Your task to perform on an android device: install app "Spotify: Music and Podcasts" Image 0: 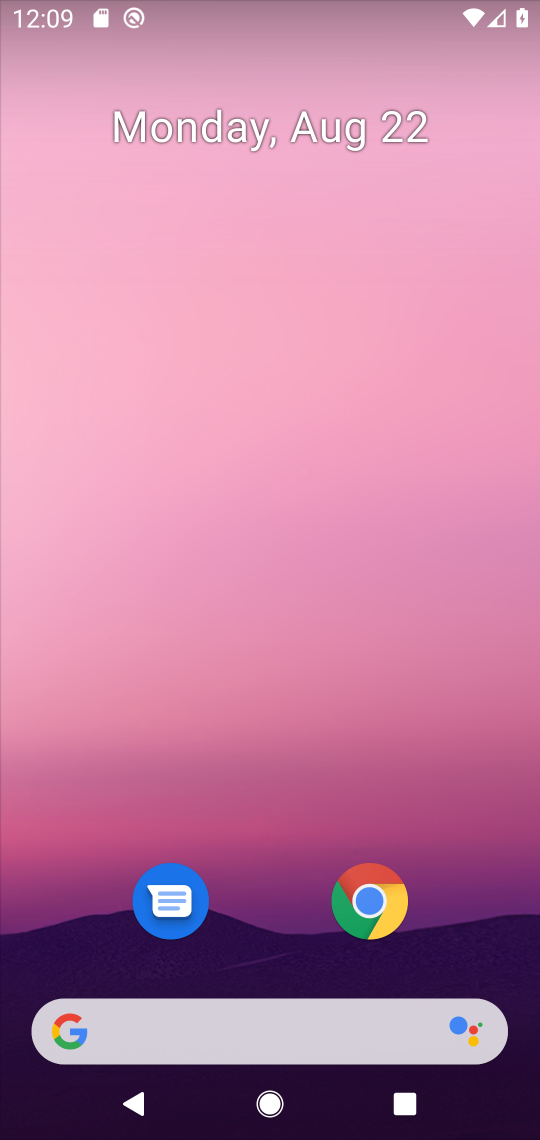
Step 0: drag from (294, 364) to (350, 18)
Your task to perform on an android device: install app "Spotify: Music and Podcasts" Image 1: 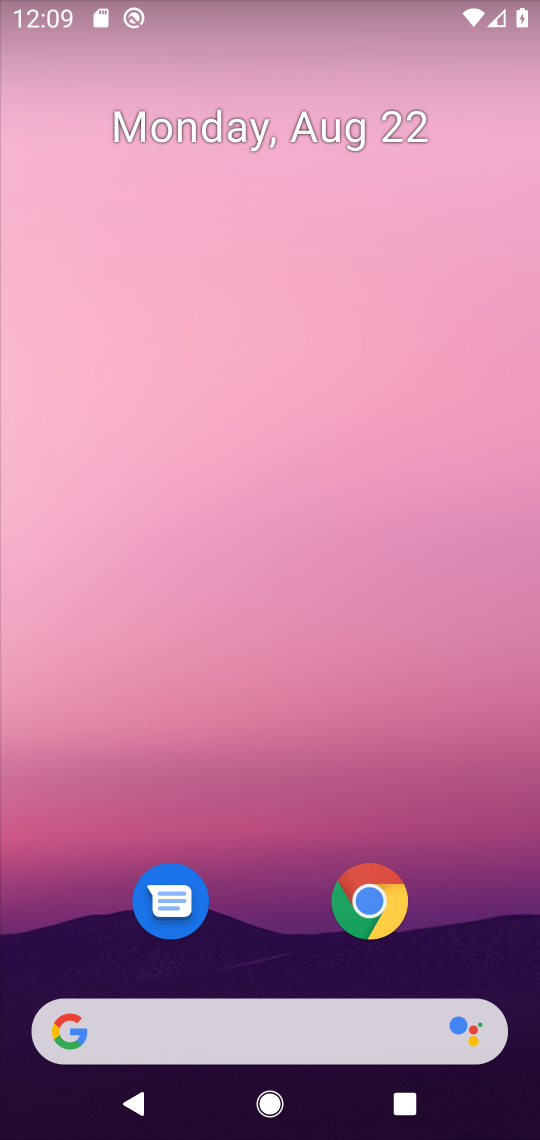
Step 1: drag from (286, 956) to (388, 0)
Your task to perform on an android device: install app "Spotify: Music and Podcasts" Image 2: 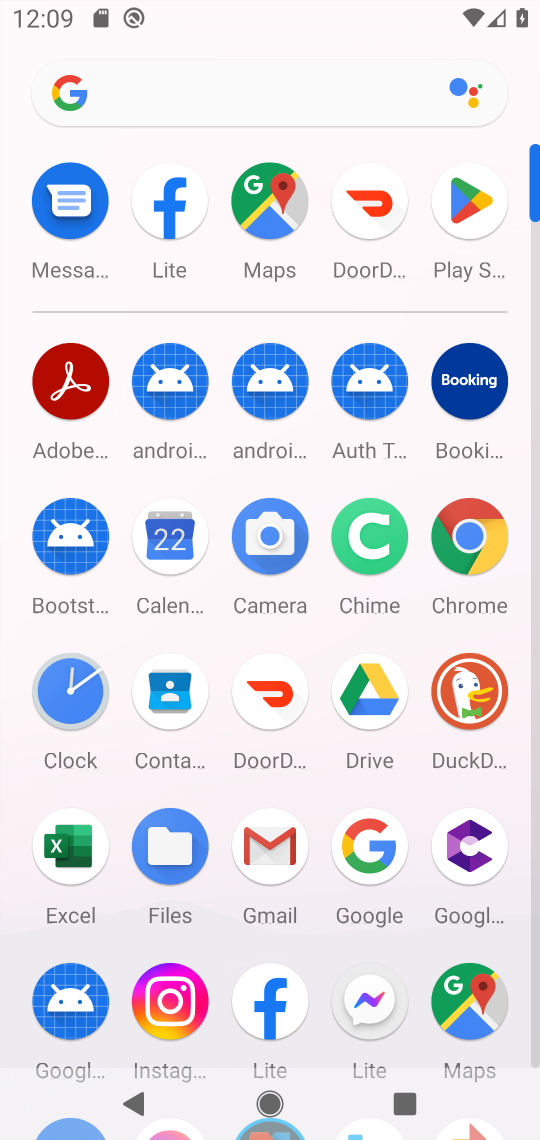
Step 2: click (483, 215)
Your task to perform on an android device: install app "Spotify: Music and Podcasts" Image 3: 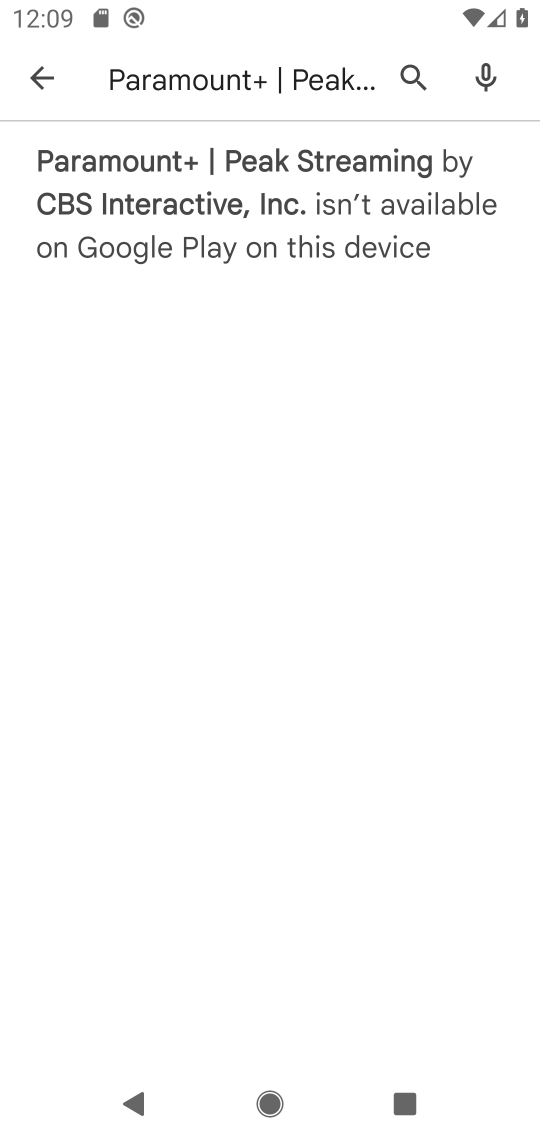
Step 3: click (427, 90)
Your task to perform on an android device: install app "Spotify: Music and Podcasts" Image 4: 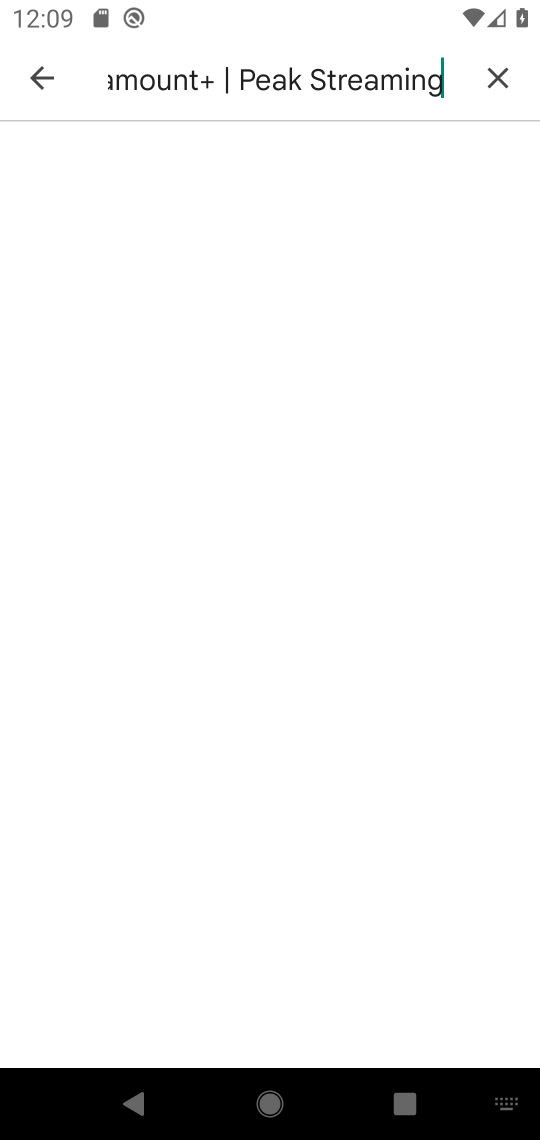
Step 4: task complete